Your task to perform on an android device: change timer sound Image 0: 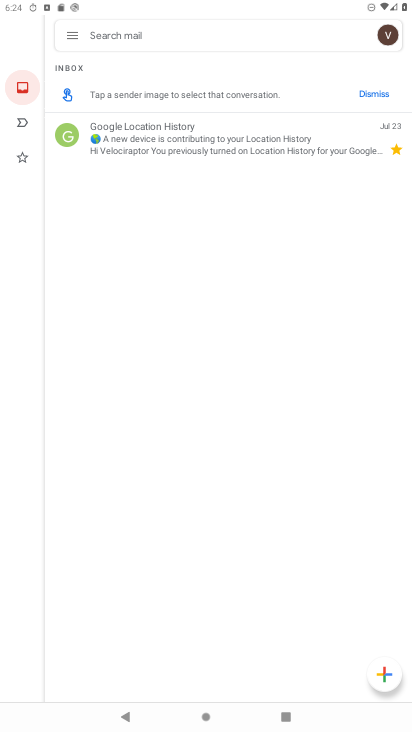
Step 0: press home button
Your task to perform on an android device: change timer sound Image 1: 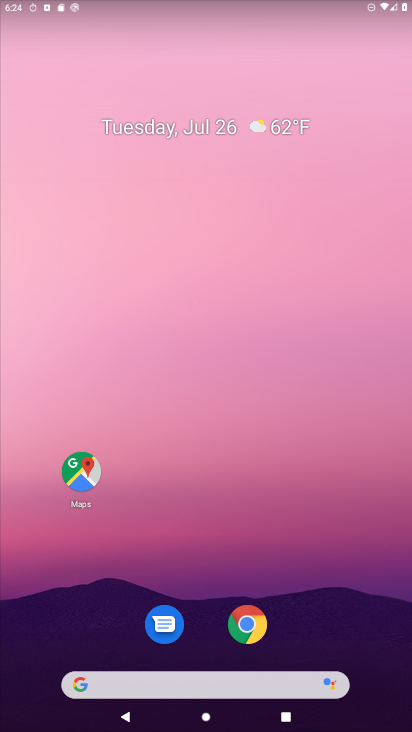
Step 1: drag from (148, 678) to (204, 55)
Your task to perform on an android device: change timer sound Image 2: 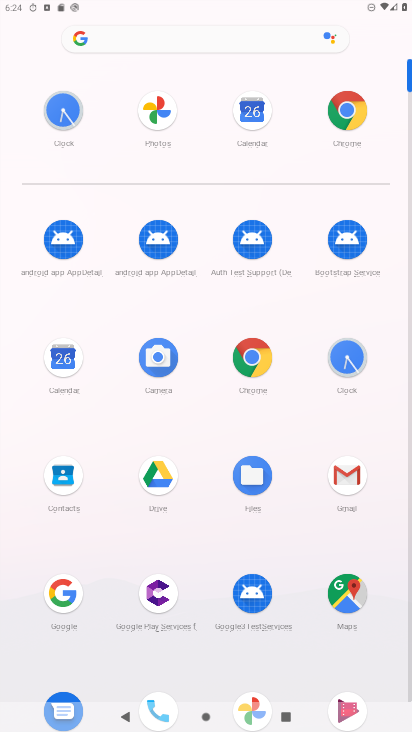
Step 2: click (75, 105)
Your task to perform on an android device: change timer sound Image 3: 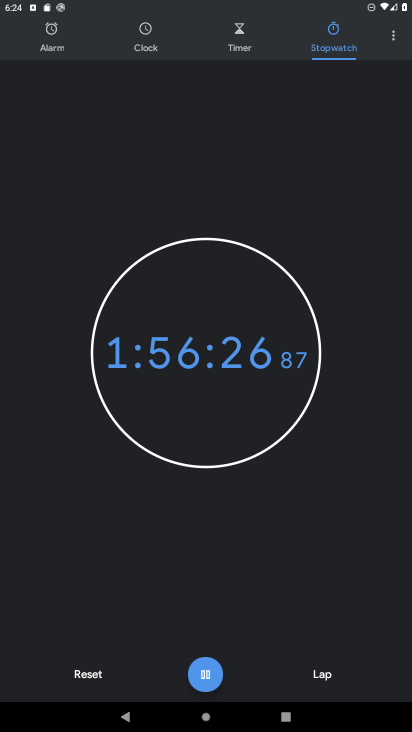
Step 3: click (390, 31)
Your task to perform on an android device: change timer sound Image 4: 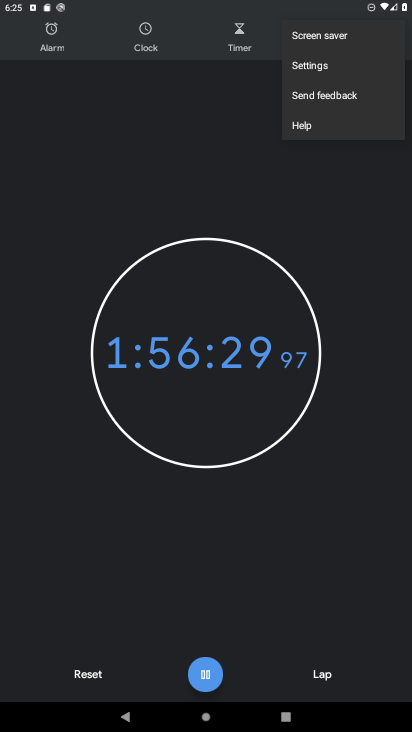
Step 4: click (325, 65)
Your task to perform on an android device: change timer sound Image 5: 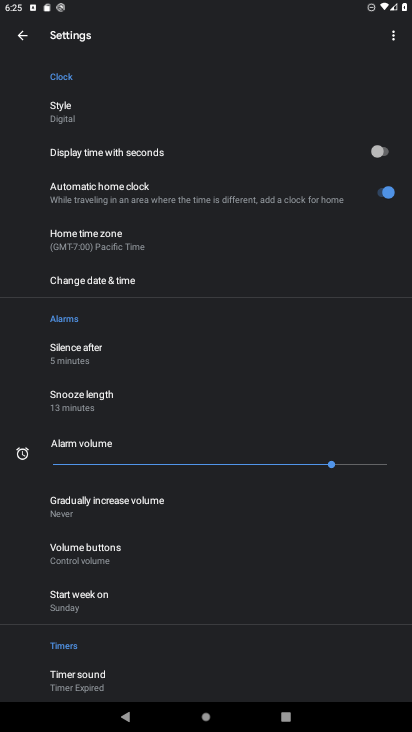
Step 5: drag from (105, 668) to (158, 281)
Your task to perform on an android device: change timer sound Image 6: 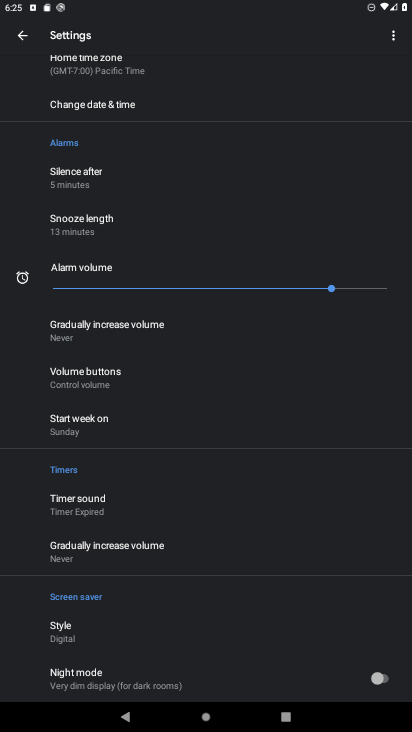
Step 6: click (91, 506)
Your task to perform on an android device: change timer sound Image 7: 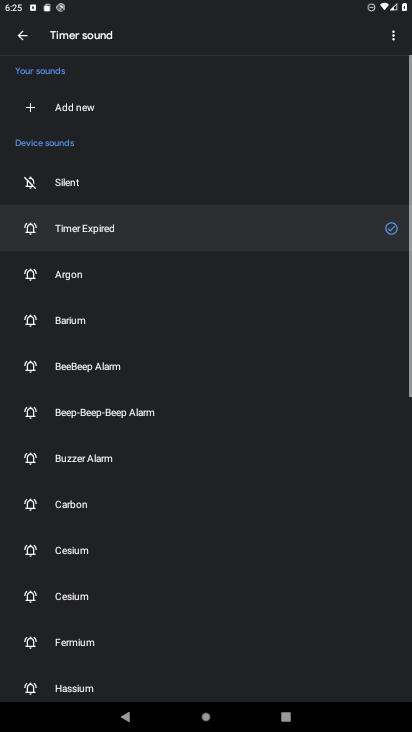
Step 7: click (77, 280)
Your task to perform on an android device: change timer sound Image 8: 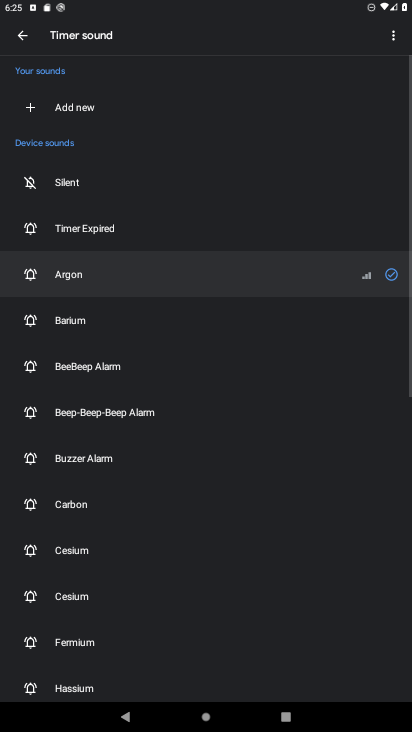
Step 8: task complete